Your task to perform on an android device: Go to Google Image 0: 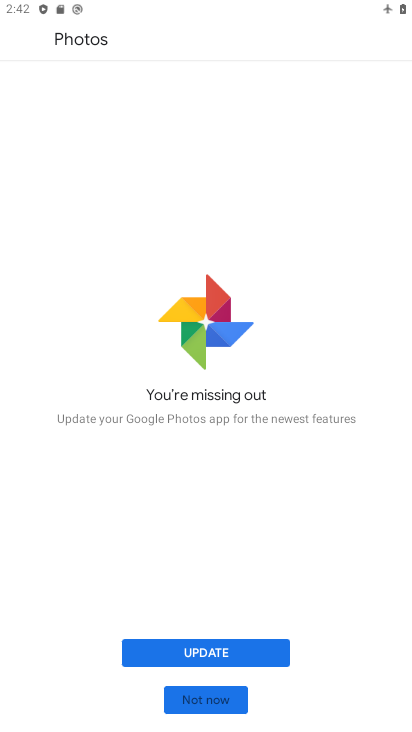
Step 0: click (223, 702)
Your task to perform on an android device: Go to Google Image 1: 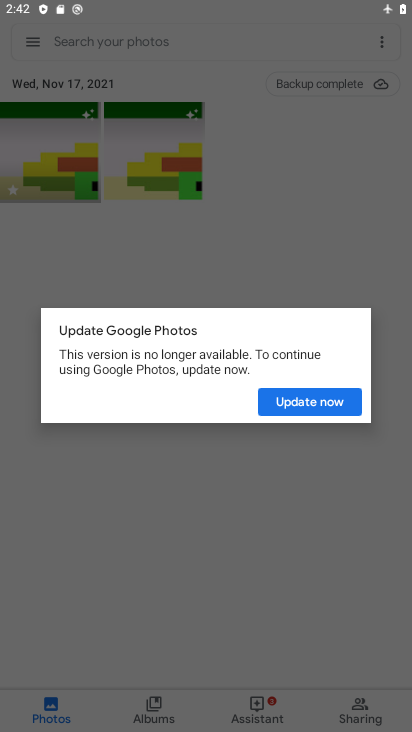
Step 1: click (322, 401)
Your task to perform on an android device: Go to Google Image 2: 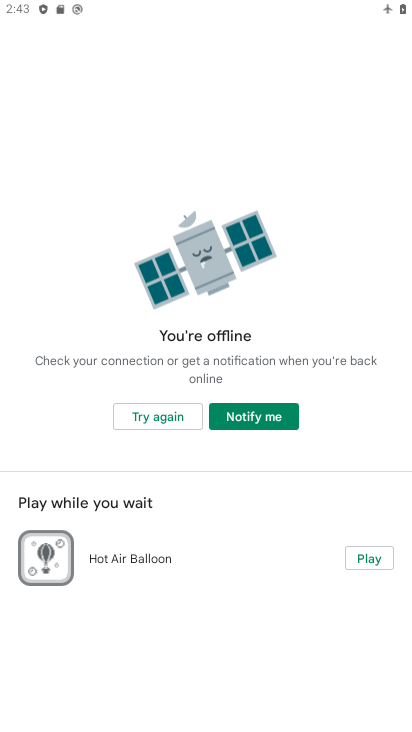
Step 2: task complete